Your task to perform on an android device: Search for vegetarian restaurants on Maps Image 0: 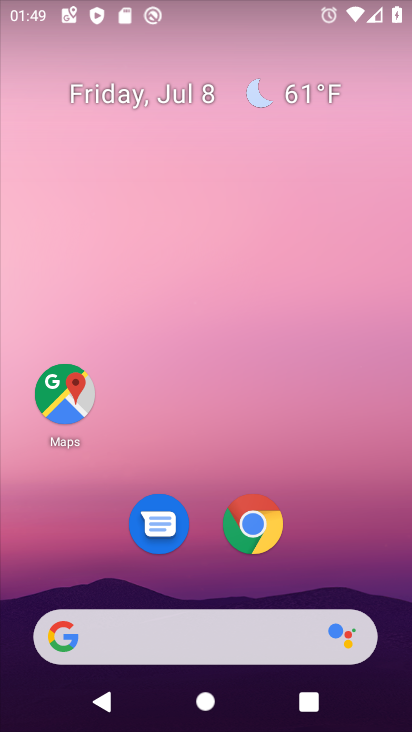
Step 0: click (74, 401)
Your task to perform on an android device: Search for vegetarian restaurants on Maps Image 1: 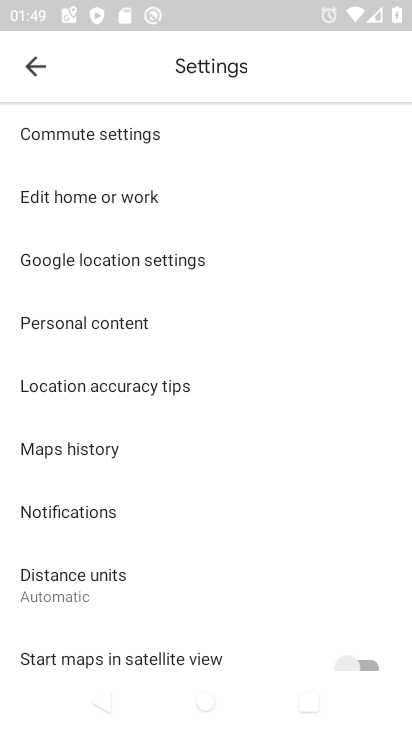
Step 1: click (34, 58)
Your task to perform on an android device: Search for vegetarian restaurants on Maps Image 2: 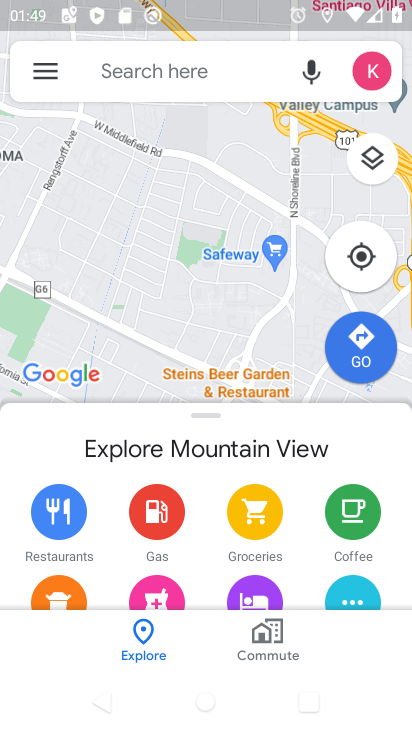
Step 2: click (90, 62)
Your task to perform on an android device: Search for vegetarian restaurants on Maps Image 3: 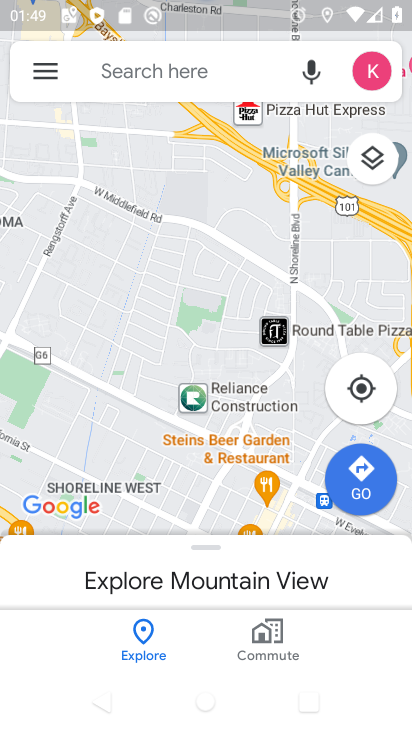
Step 3: click (90, 62)
Your task to perform on an android device: Search for vegetarian restaurants on Maps Image 4: 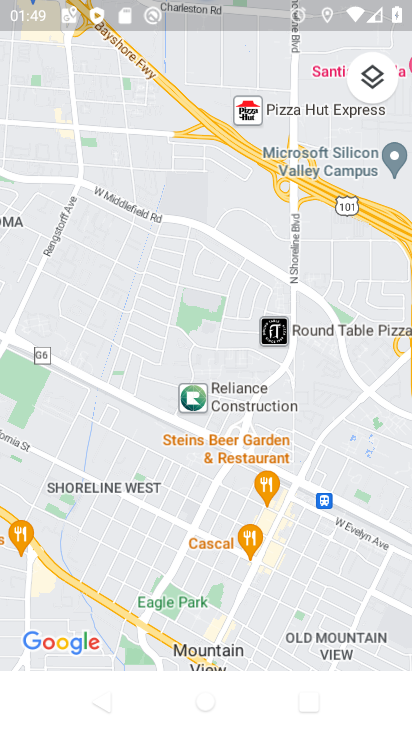
Step 4: click (113, 112)
Your task to perform on an android device: Search for vegetarian restaurants on Maps Image 5: 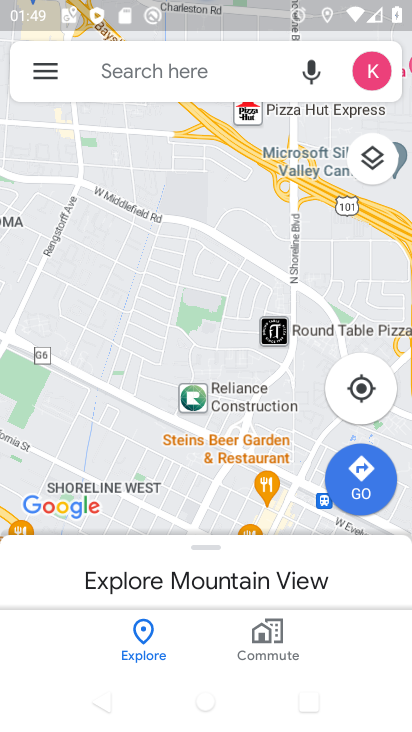
Step 5: click (126, 72)
Your task to perform on an android device: Search for vegetarian restaurants on Maps Image 6: 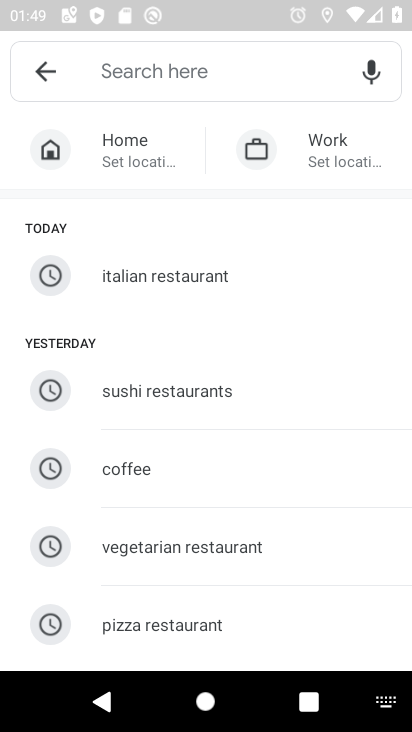
Step 6: click (189, 552)
Your task to perform on an android device: Search for vegetarian restaurants on Maps Image 7: 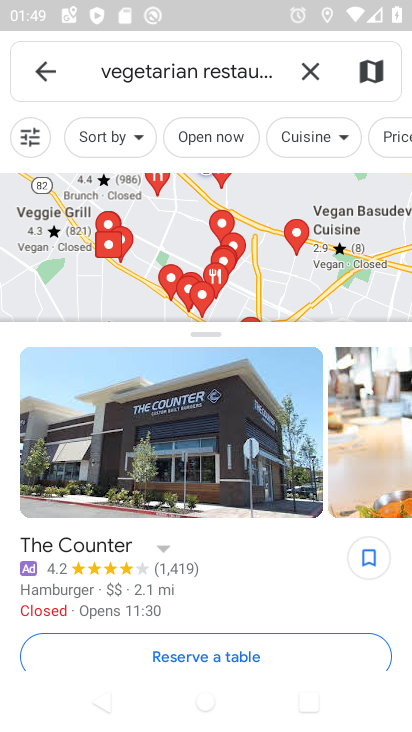
Step 7: drag from (227, 569) to (322, 203)
Your task to perform on an android device: Search for vegetarian restaurants on Maps Image 8: 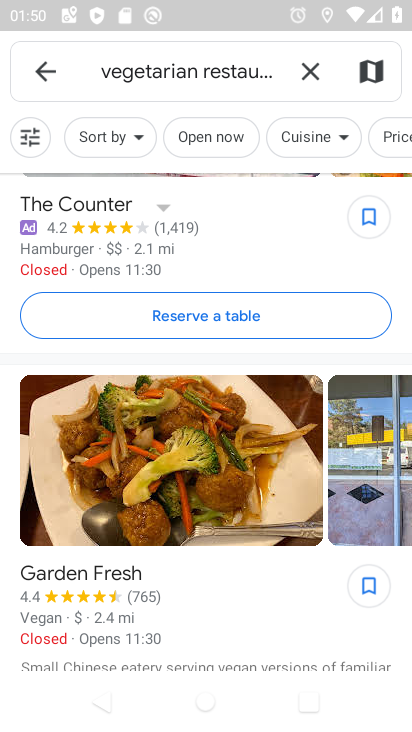
Step 8: drag from (219, 580) to (267, 257)
Your task to perform on an android device: Search for vegetarian restaurants on Maps Image 9: 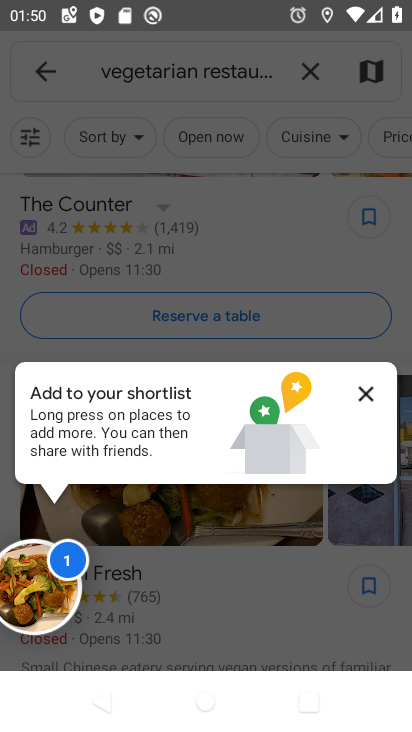
Step 9: click (371, 389)
Your task to perform on an android device: Search for vegetarian restaurants on Maps Image 10: 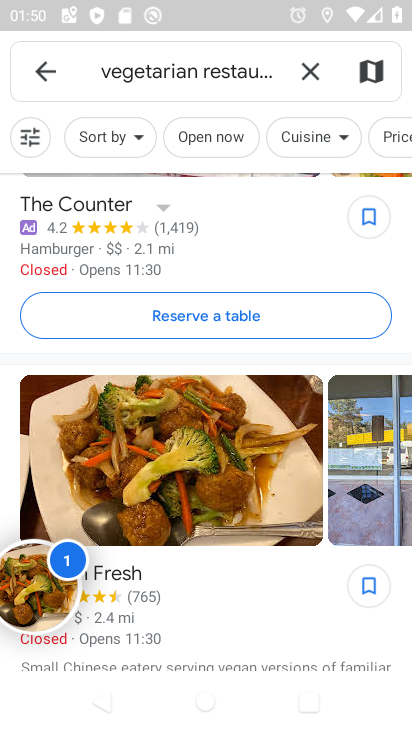
Step 10: task complete